Your task to perform on an android device: turn smart compose on in the gmail app Image 0: 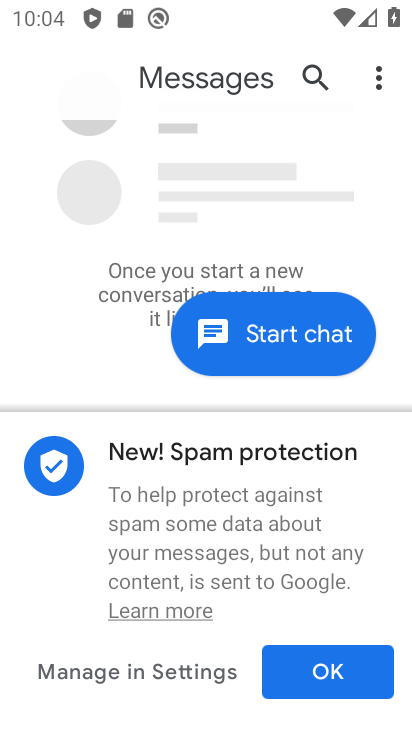
Step 0: press back button
Your task to perform on an android device: turn smart compose on in the gmail app Image 1: 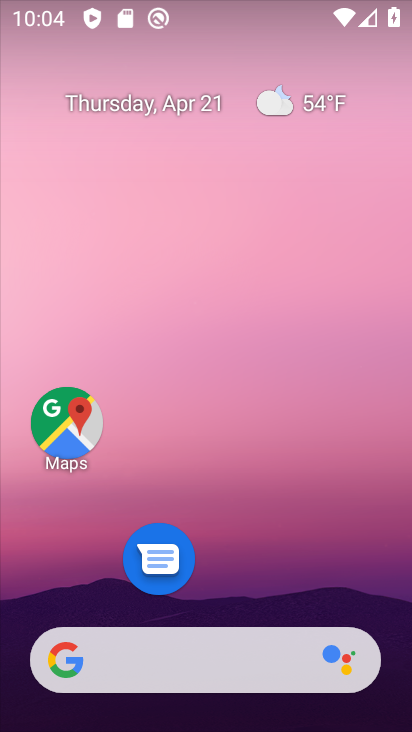
Step 1: drag from (238, 508) to (312, 10)
Your task to perform on an android device: turn smart compose on in the gmail app Image 2: 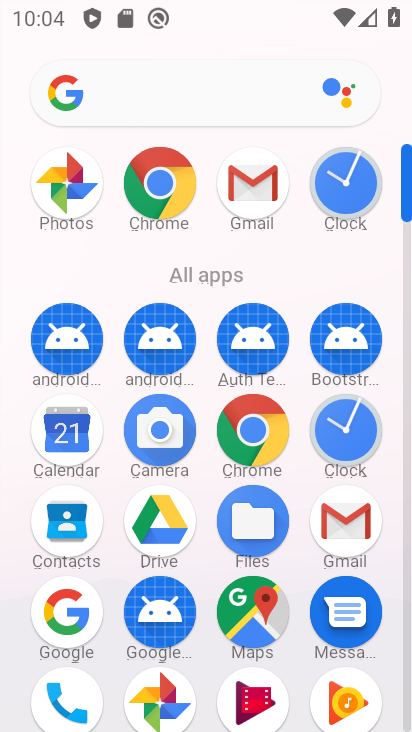
Step 2: click (263, 174)
Your task to perform on an android device: turn smart compose on in the gmail app Image 3: 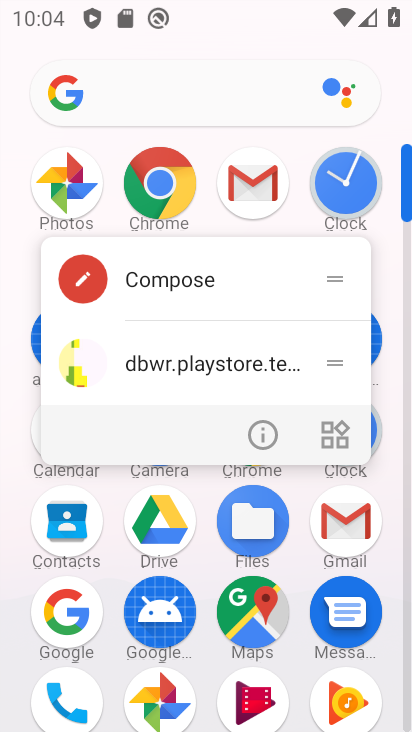
Step 3: click (258, 184)
Your task to perform on an android device: turn smart compose on in the gmail app Image 4: 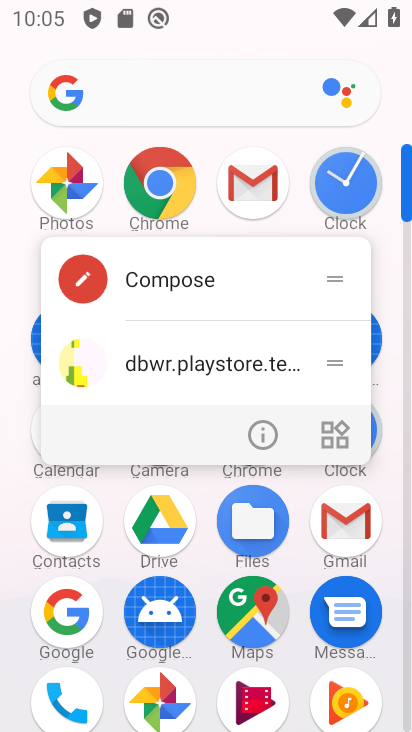
Step 4: click (244, 183)
Your task to perform on an android device: turn smart compose on in the gmail app Image 5: 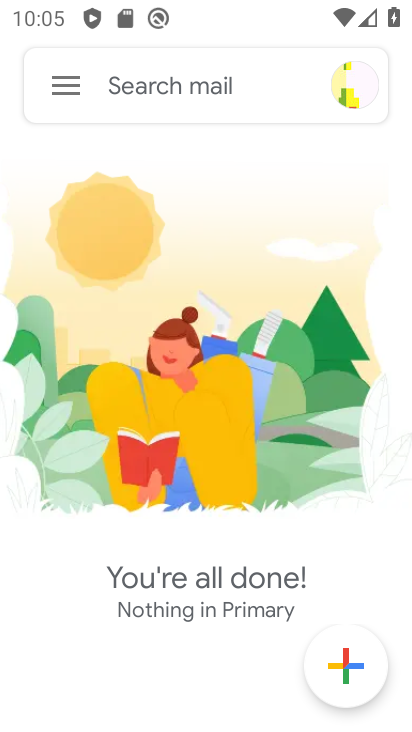
Step 5: click (58, 81)
Your task to perform on an android device: turn smart compose on in the gmail app Image 6: 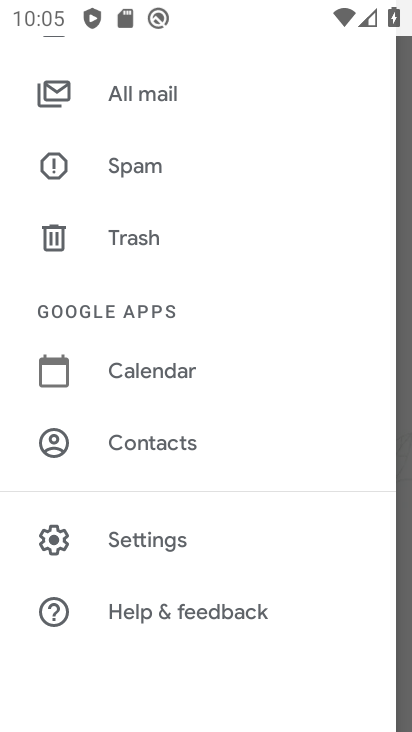
Step 6: click (172, 544)
Your task to perform on an android device: turn smart compose on in the gmail app Image 7: 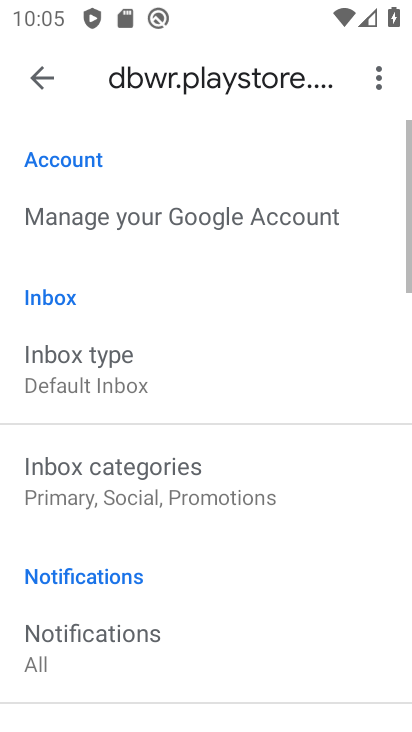
Step 7: task complete